Your task to perform on an android device: turn on the 24-hour format for clock Image 0: 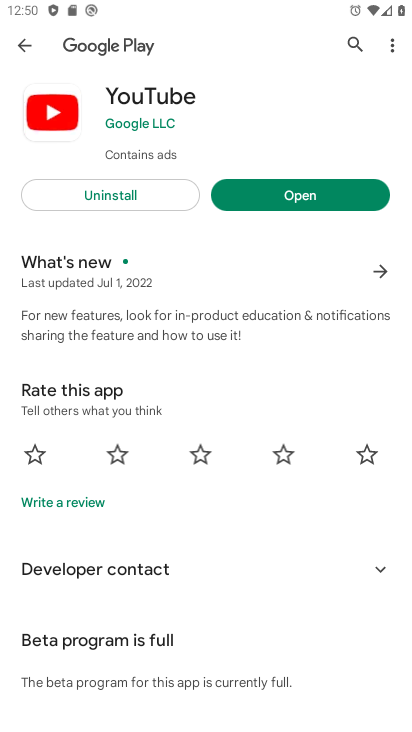
Step 0: press home button
Your task to perform on an android device: turn on the 24-hour format for clock Image 1: 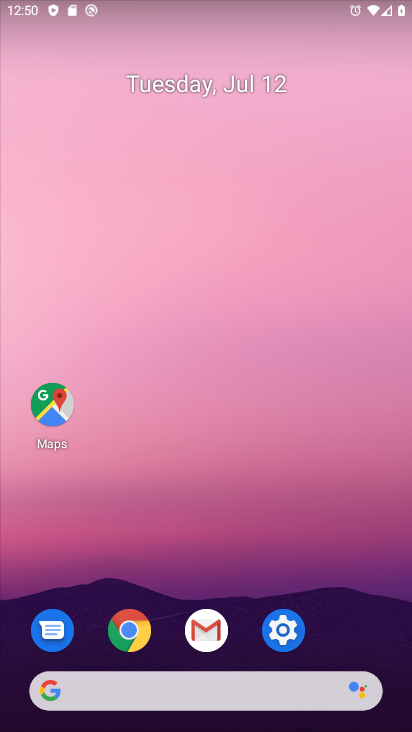
Step 1: drag from (224, 703) to (377, 62)
Your task to perform on an android device: turn on the 24-hour format for clock Image 2: 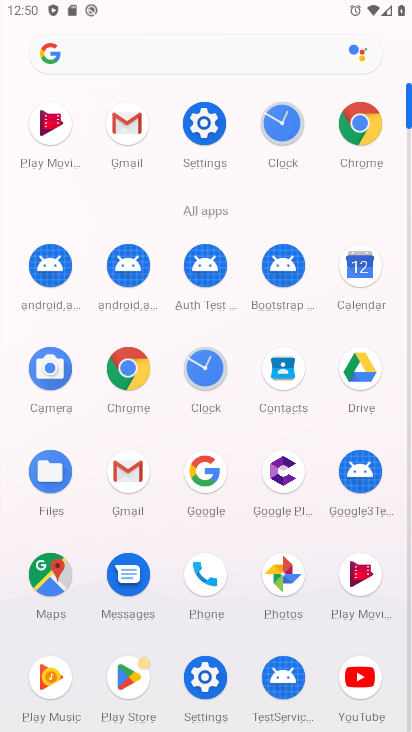
Step 2: click (201, 382)
Your task to perform on an android device: turn on the 24-hour format for clock Image 3: 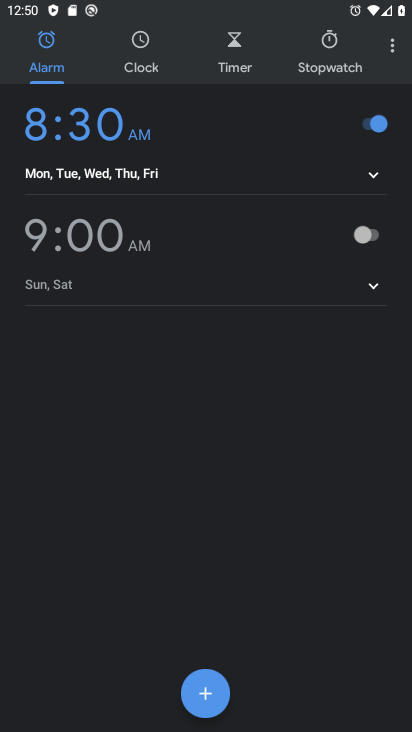
Step 3: click (383, 50)
Your task to perform on an android device: turn on the 24-hour format for clock Image 4: 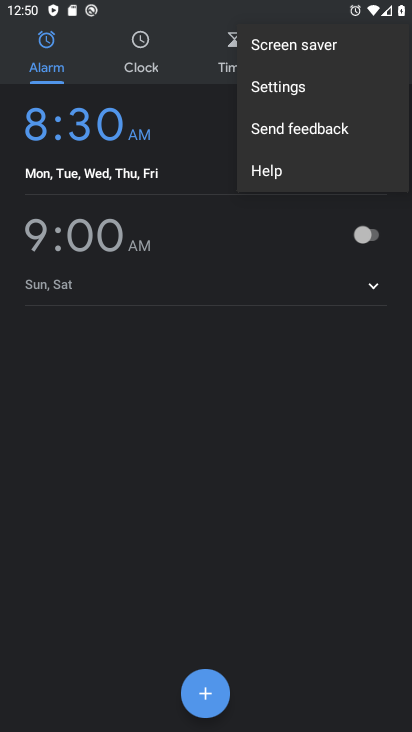
Step 4: click (316, 83)
Your task to perform on an android device: turn on the 24-hour format for clock Image 5: 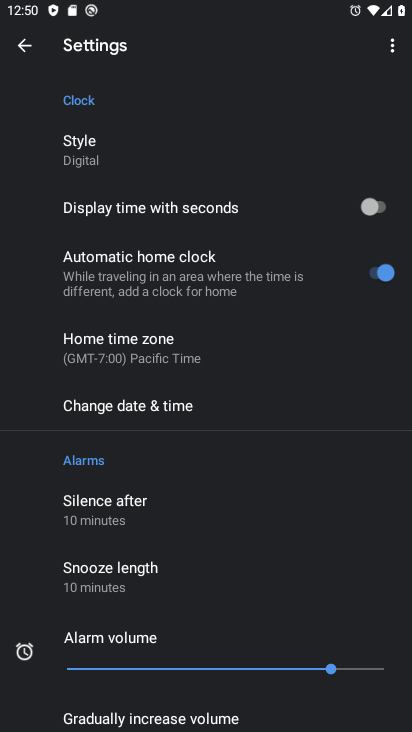
Step 5: click (141, 411)
Your task to perform on an android device: turn on the 24-hour format for clock Image 6: 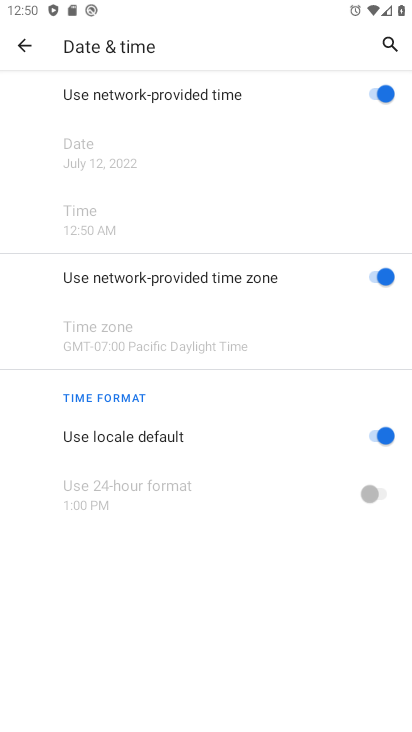
Step 6: click (367, 446)
Your task to perform on an android device: turn on the 24-hour format for clock Image 7: 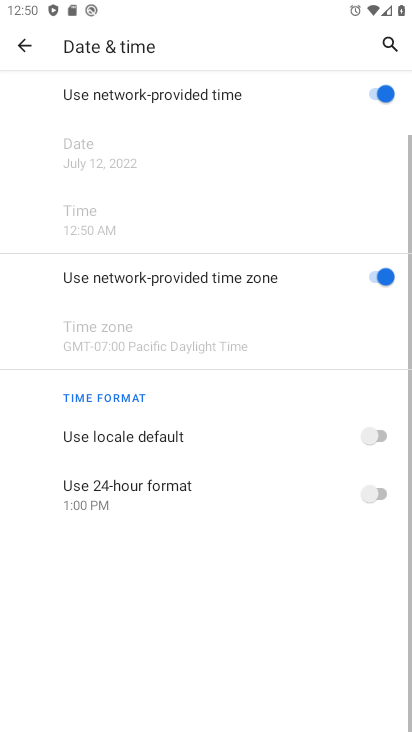
Step 7: click (375, 492)
Your task to perform on an android device: turn on the 24-hour format for clock Image 8: 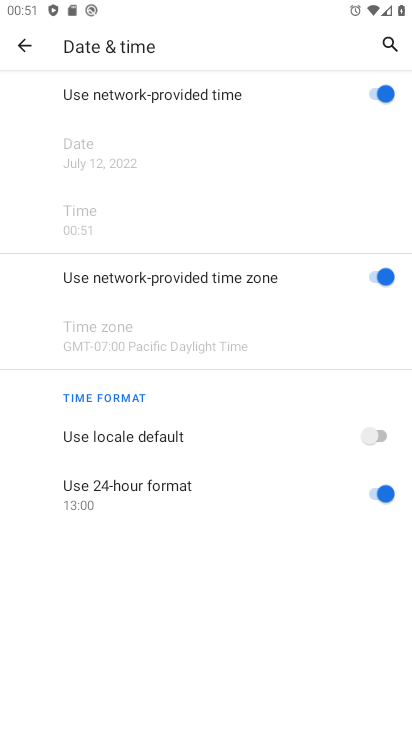
Step 8: task complete